Your task to perform on an android device: open device folders in google photos Image 0: 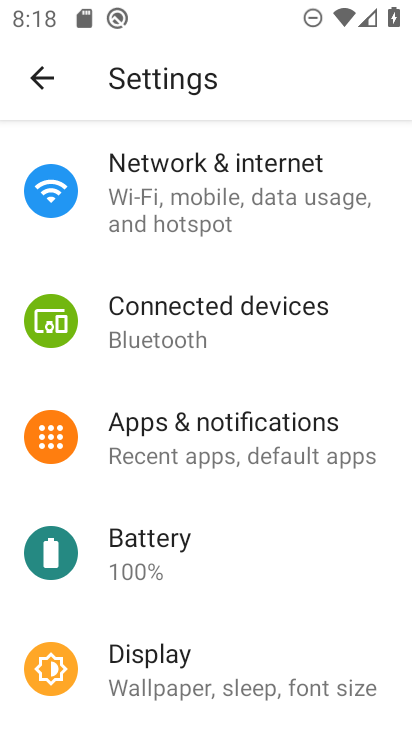
Step 0: press home button
Your task to perform on an android device: open device folders in google photos Image 1: 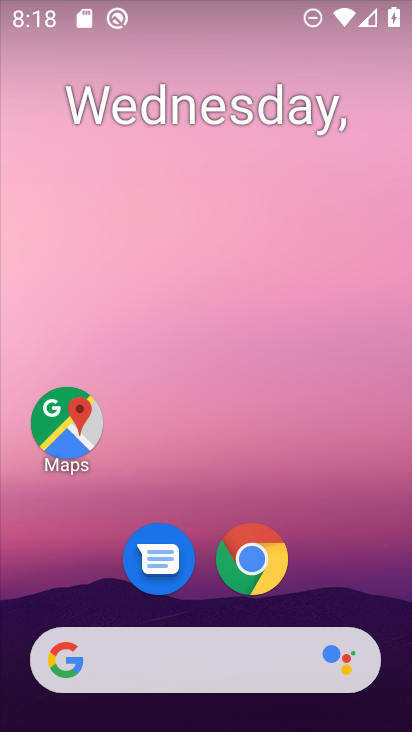
Step 1: drag from (273, 626) to (336, 217)
Your task to perform on an android device: open device folders in google photos Image 2: 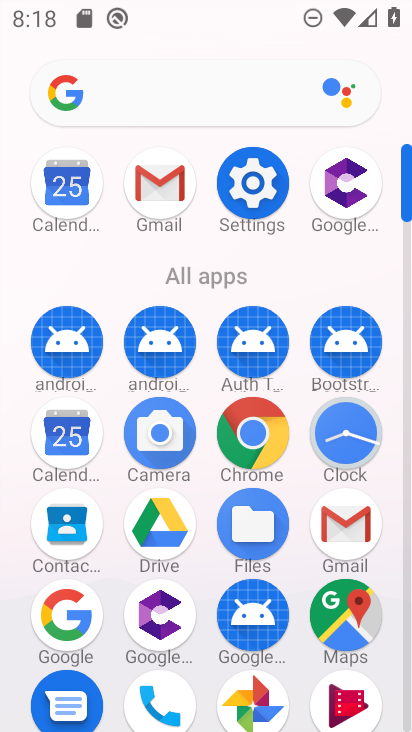
Step 2: drag from (186, 523) to (249, 201)
Your task to perform on an android device: open device folders in google photos Image 3: 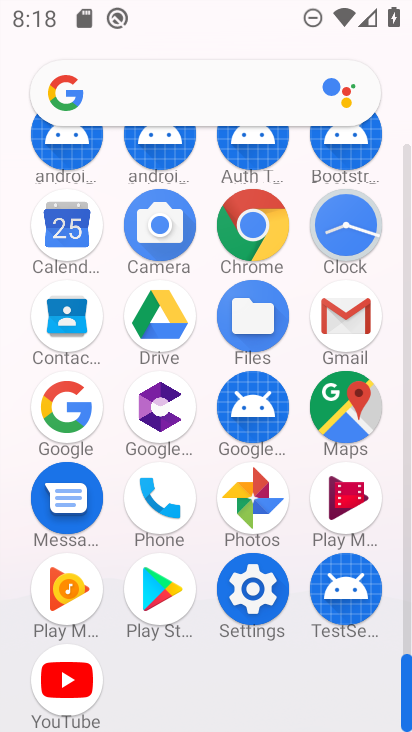
Step 3: click (272, 509)
Your task to perform on an android device: open device folders in google photos Image 4: 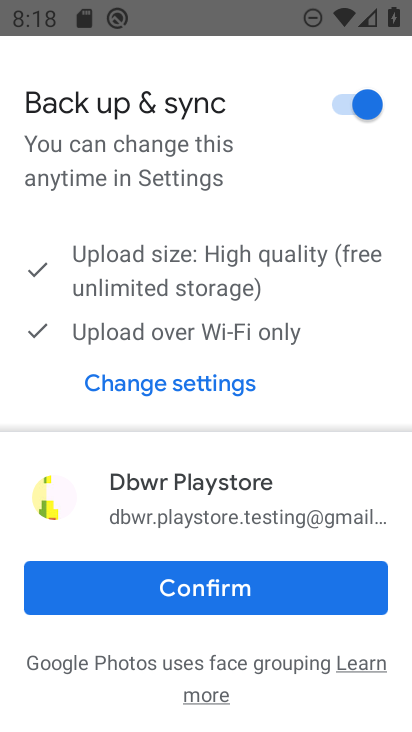
Step 4: click (289, 585)
Your task to perform on an android device: open device folders in google photos Image 5: 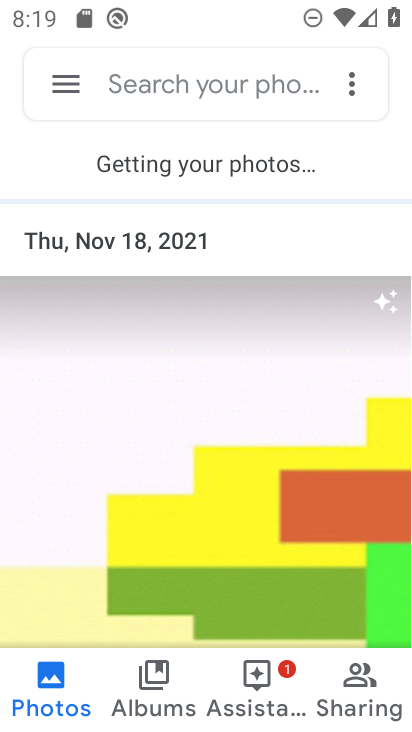
Step 5: click (74, 84)
Your task to perform on an android device: open device folders in google photos Image 6: 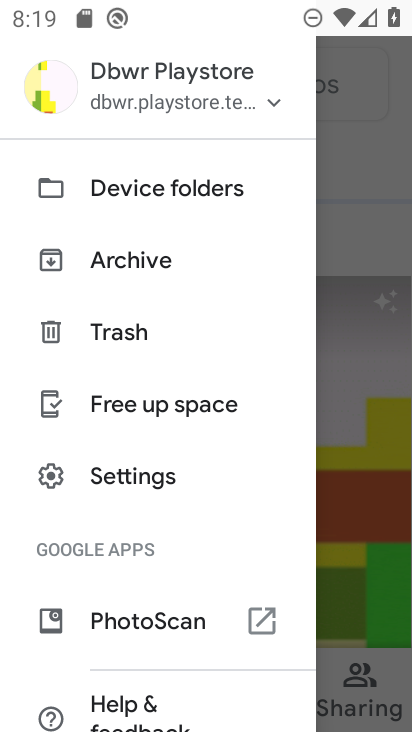
Step 6: click (116, 195)
Your task to perform on an android device: open device folders in google photos Image 7: 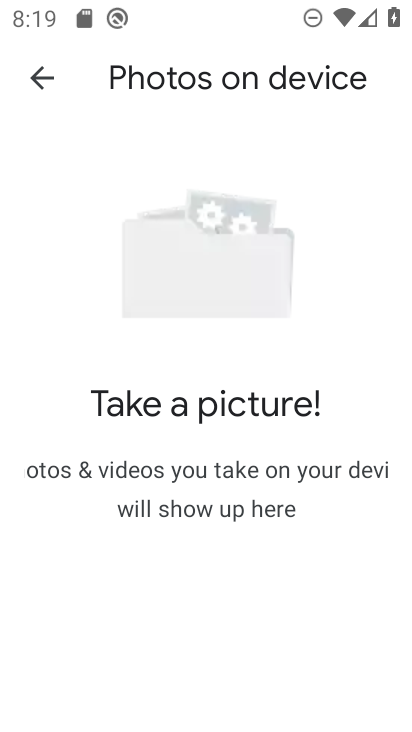
Step 7: task complete